Your task to perform on an android device: What's the weather going to be tomorrow? Image 0: 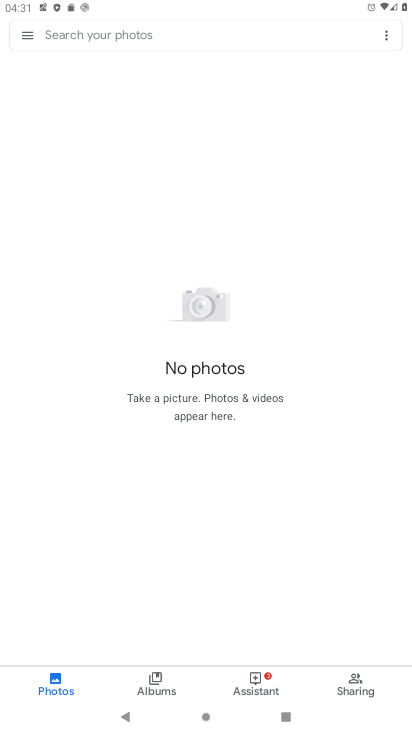
Step 0: press home button
Your task to perform on an android device: What's the weather going to be tomorrow? Image 1: 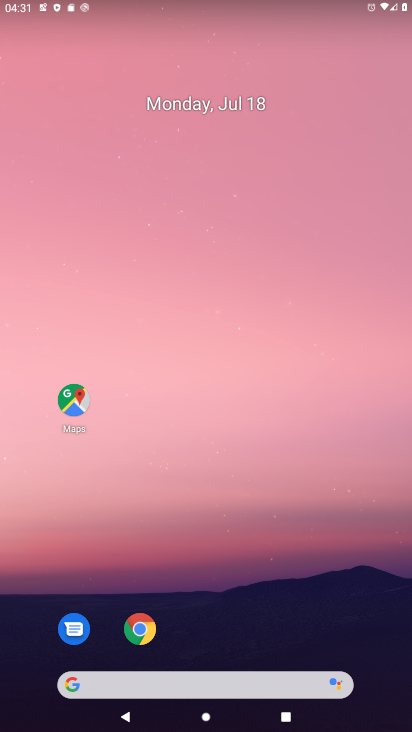
Step 1: drag from (389, 712) to (368, 563)
Your task to perform on an android device: What's the weather going to be tomorrow? Image 2: 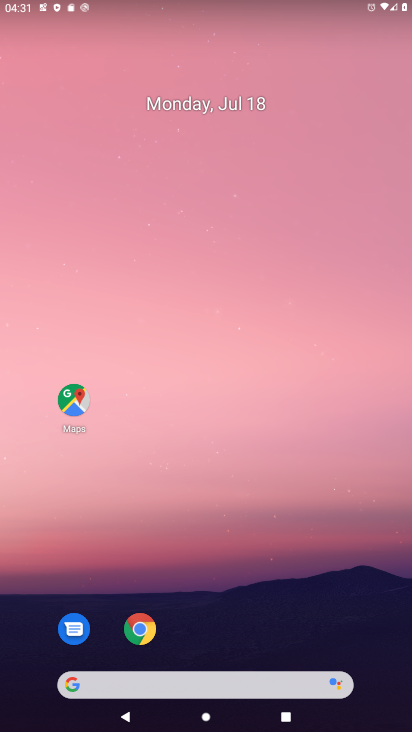
Step 2: drag from (2, 211) to (411, 255)
Your task to perform on an android device: What's the weather going to be tomorrow? Image 3: 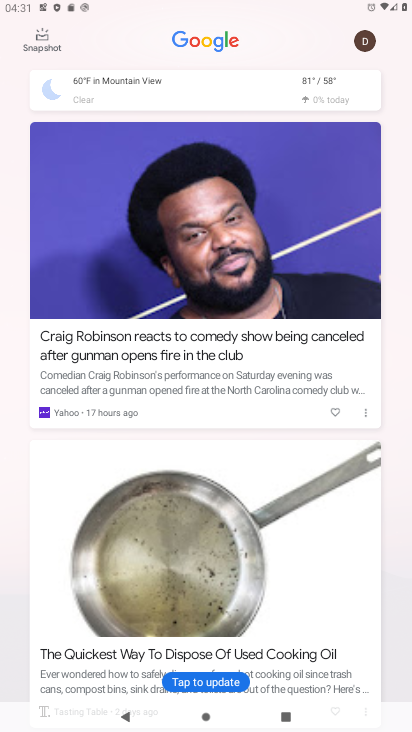
Step 3: click (299, 85)
Your task to perform on an android device: What's the weather going to be tomorrow? Image 4: 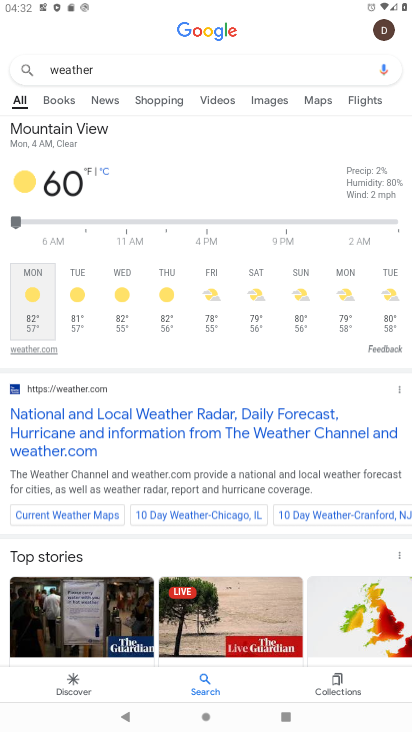
Step 4: task complete